Your task to perform on an android device: Go to CNN.com Image 0: 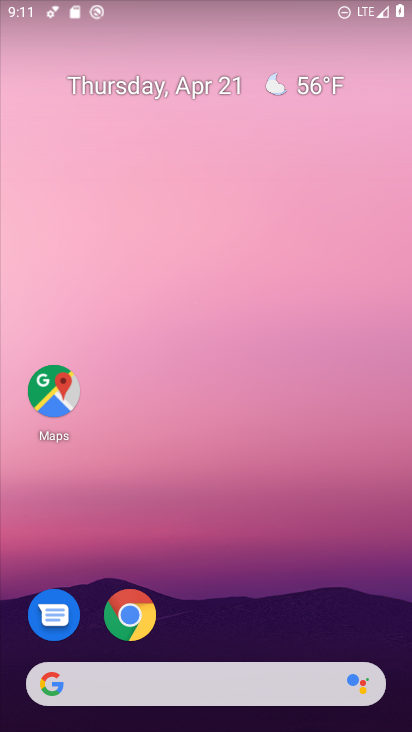
Step 0: drag from (321, 604) to (293, 77)
Your task to perform on an android device: Go to CNN.com Image 1: 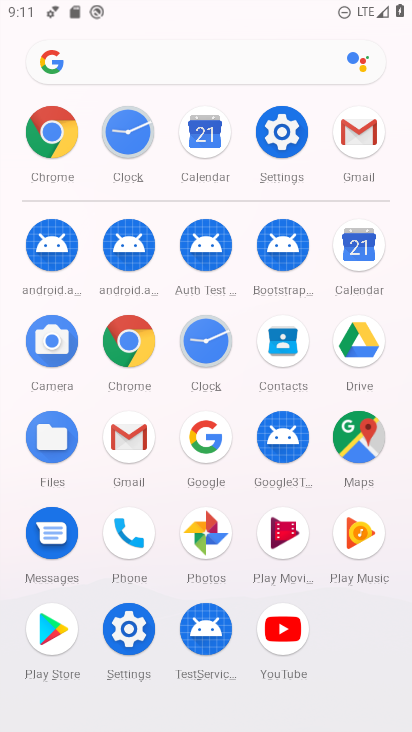
Step 1: click (51, 137)
Your task to perform on an android device: Go to CNN.com Image 2: 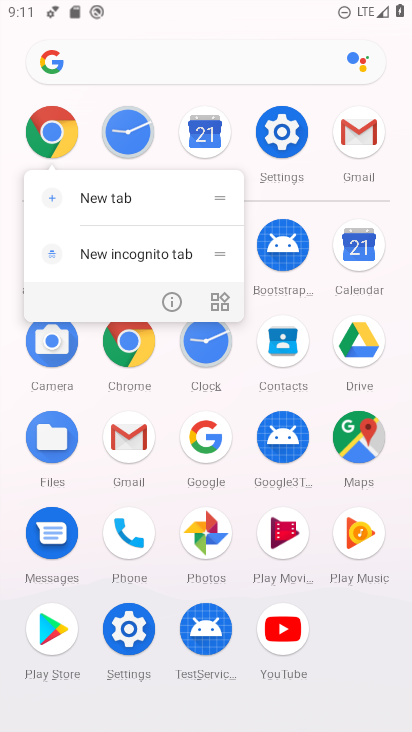
Step 2: click (51, 136)
Your task to perform on an android device: Go to CNN.com Image 3: 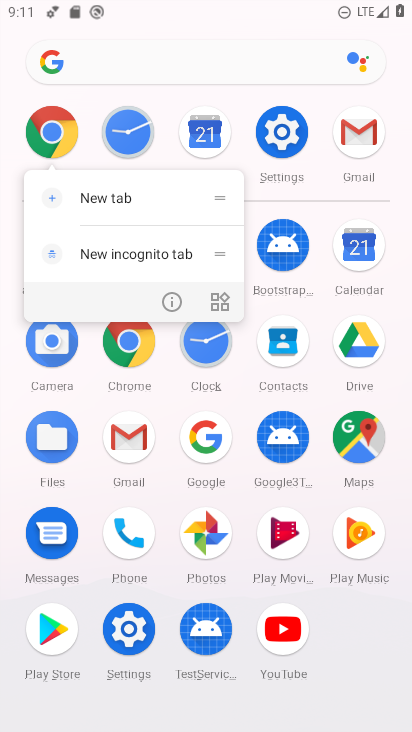
Step 3: click (51, 135)
Your task to perform on an android device: Go to CNN.com Image 4: 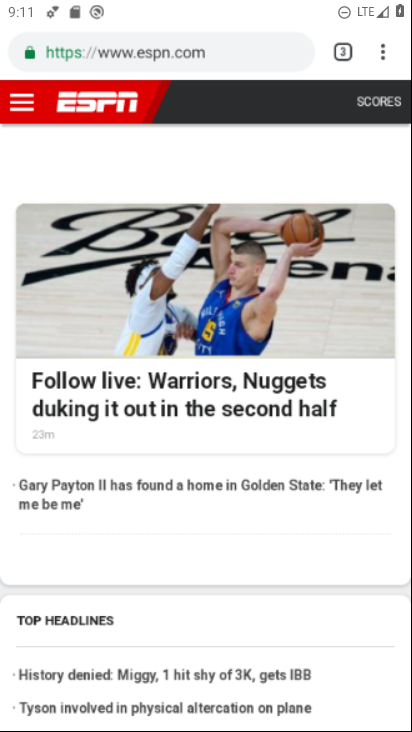
Step 4: click (51, 135)
Your task to perform on an android device: Go to CNN.com Image 5: 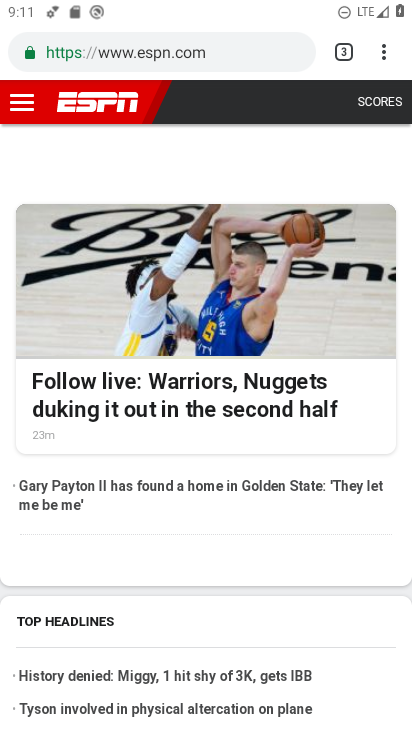
Step 5: drag from (392, 47) to (203, 95)
Your task to perform on an android device: Go to CNN.com Image 6: 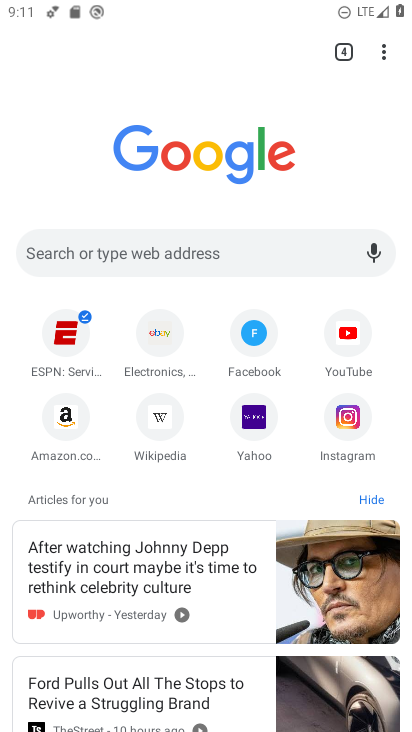
Step 6: click (124, 234)
Your task to perform on an android device: Go to CNN.com Image 7: 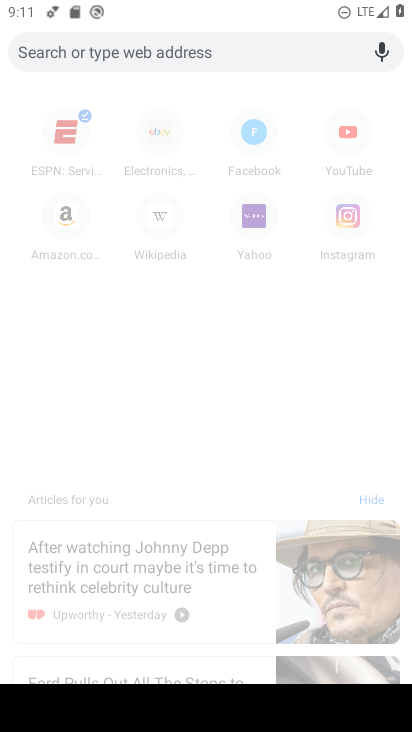
Step 7: type "cnn.com"
Your task to perform on an android device: Go to CNN.com Image 8: 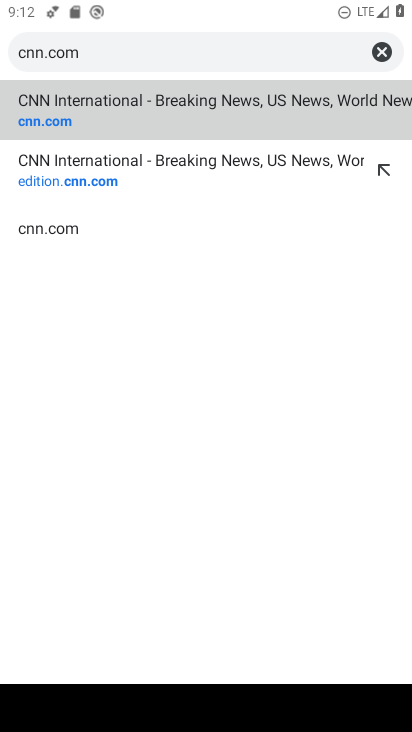
Step 8: click (65, 85)
Your task to perform on an android device: Go to CNN.com Image 9: 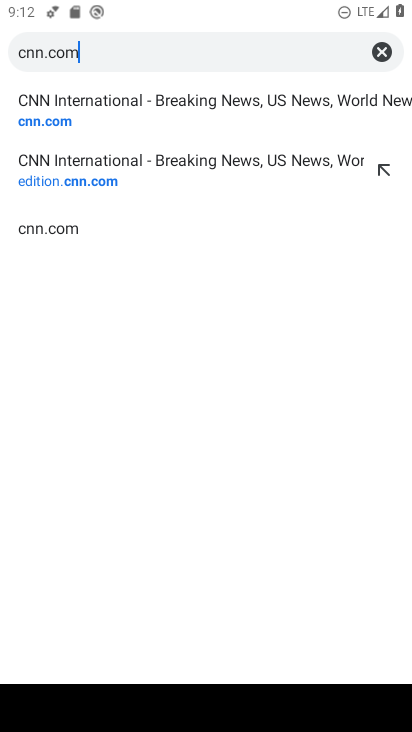
Step 9: click (78, 108)
Your task to perform on an android device: Go to CNN.com Image 10: 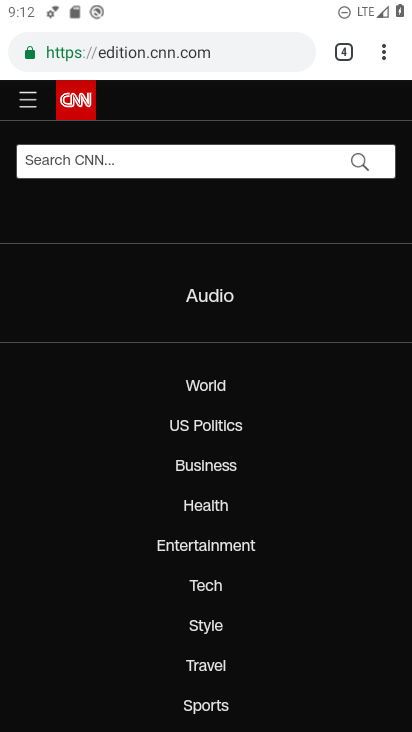
Step 10: task complete